Your task to perform on an android device: change the clock style Image 0: 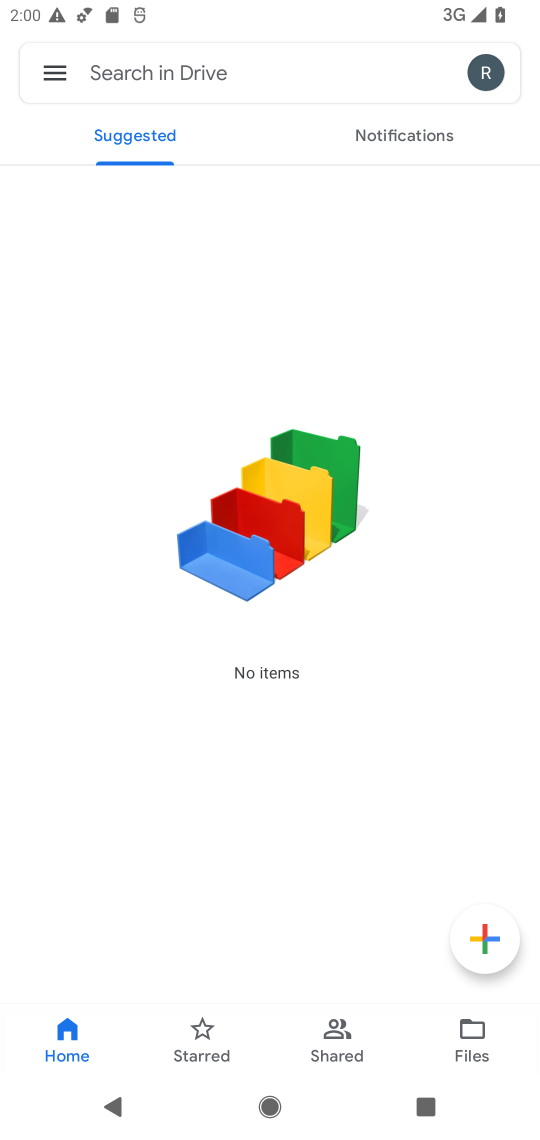
Step 0: press home button
Your task to perform on an android device: change the clock style Image 1: 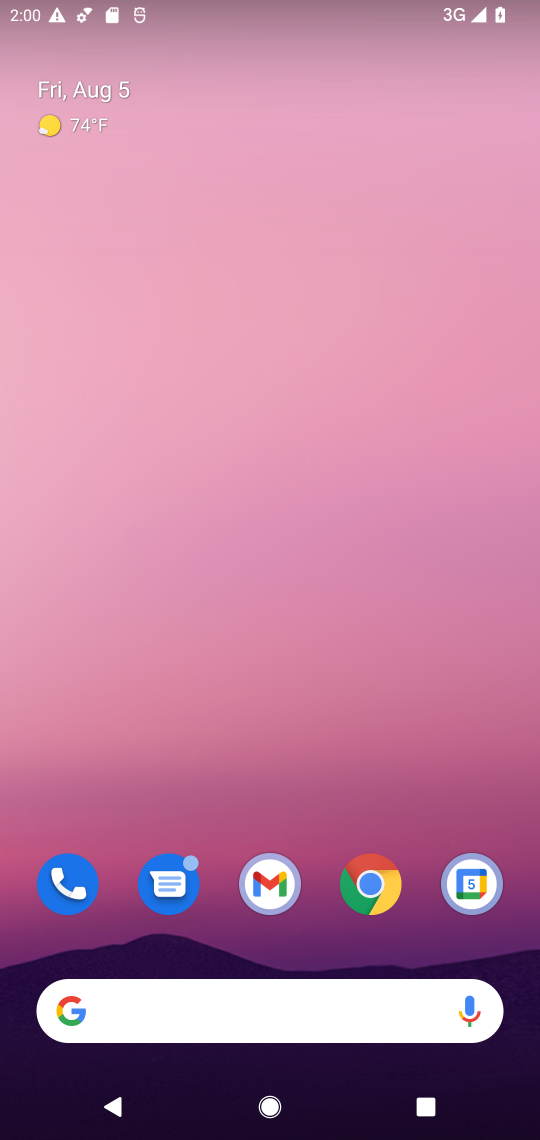
Step 1: drag from (475, 975) to (254, 95)
Your task to perform on an android device: change the clock style Image 2: 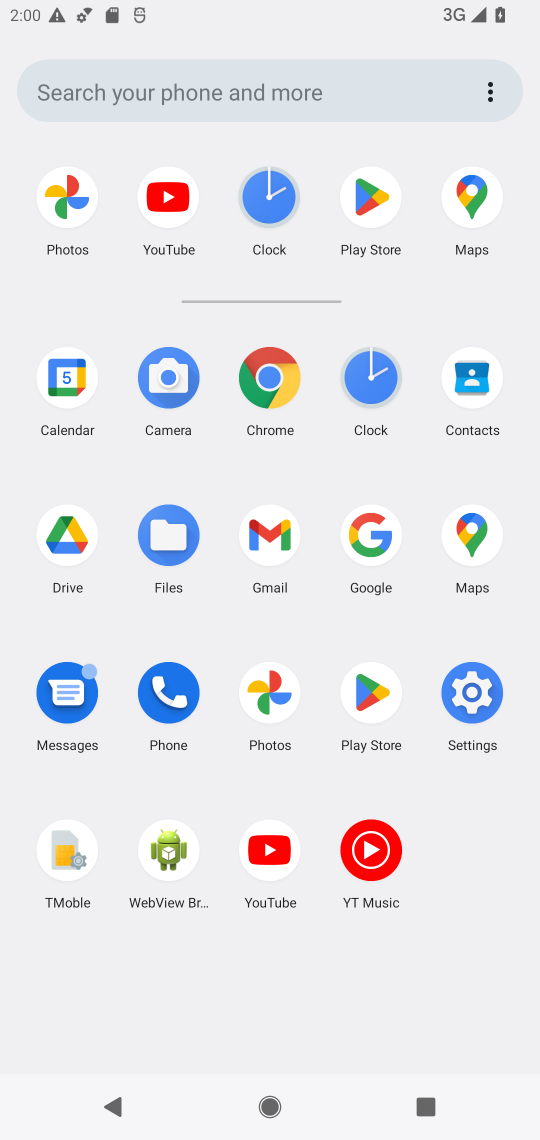
Step 2: click (266, 211)
Your task to perform on an android device: change the clock style Image 3: 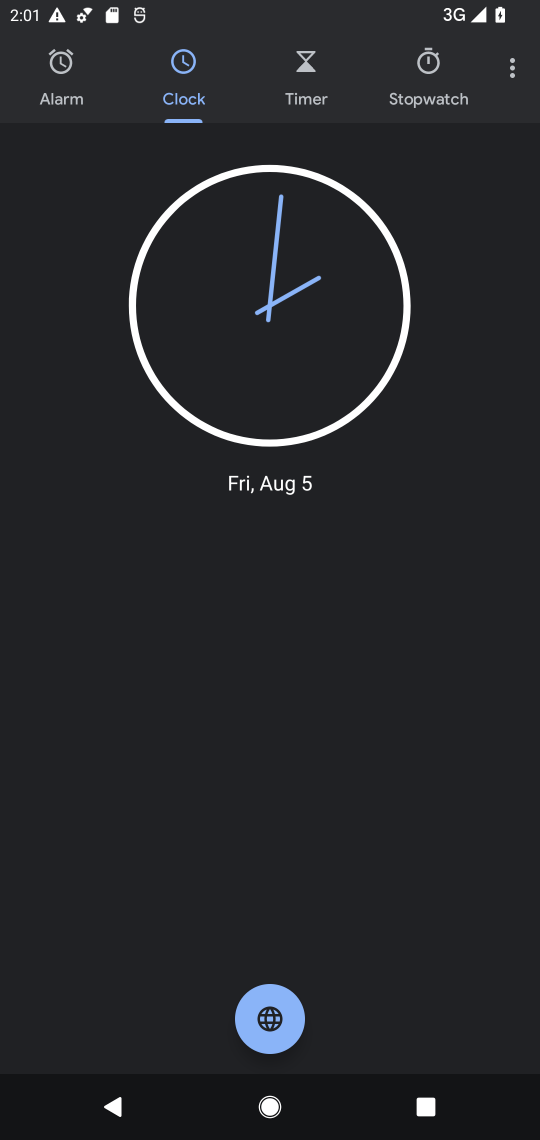
Step 3: click (514, 76)
Your task to perform on an android device: change the clock style Image 4: 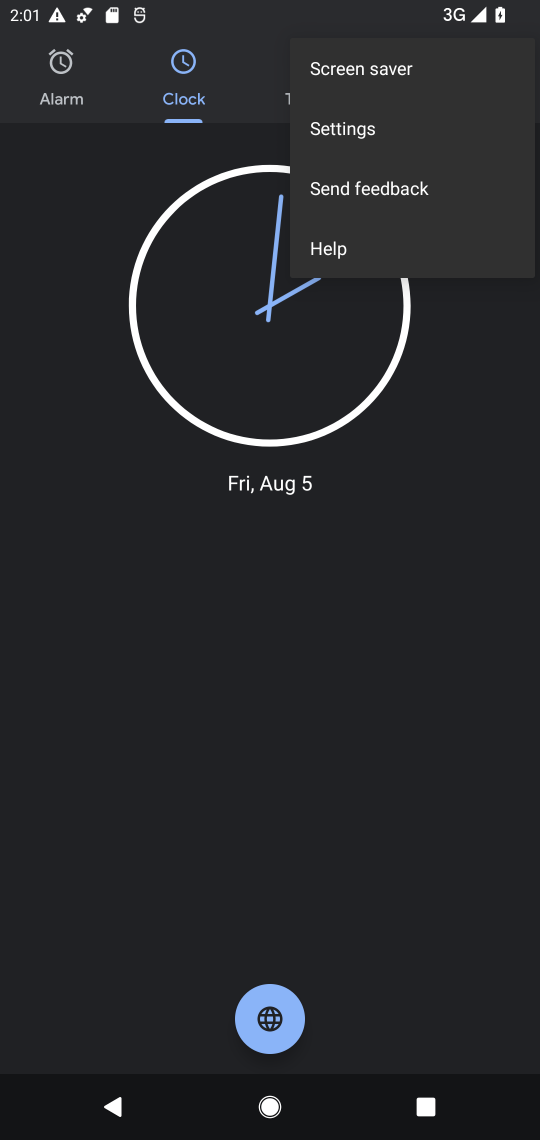
Step 4: click (338, 146)
Your task to perform on an android device: change the clock style Image 5: 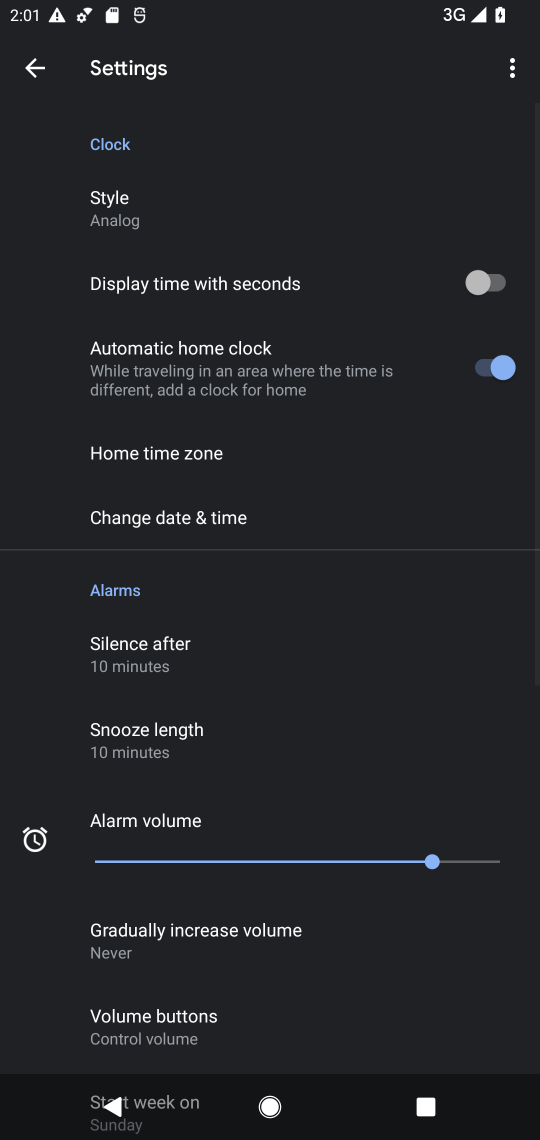
Step 5: click (112, 218)
Your task to perform on an android device: change the clock style Image 6: 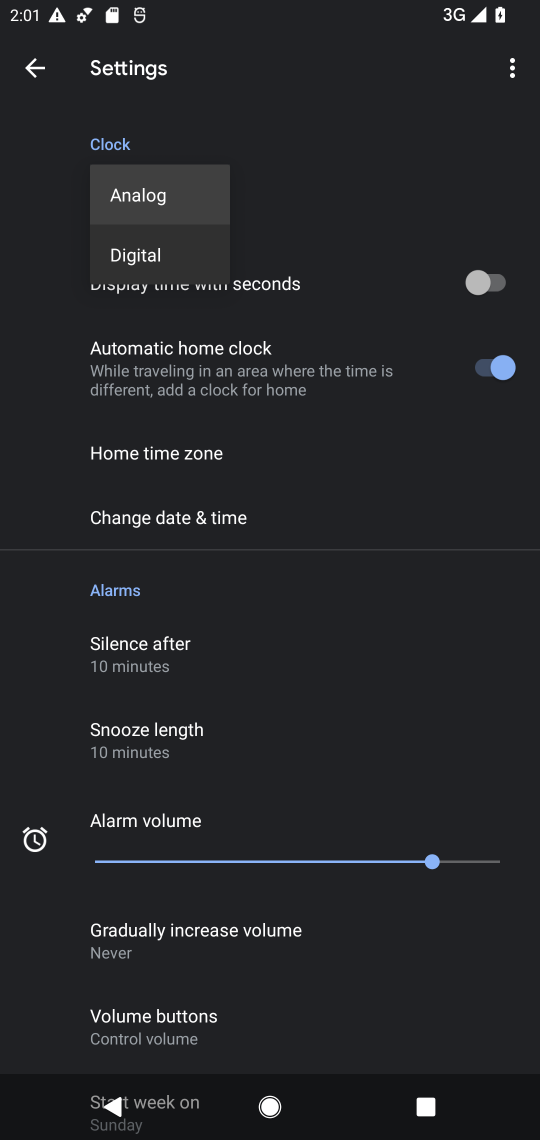
Step 6: click (171, 260)
Your task to perform on an android device: change the clock style Image 7: 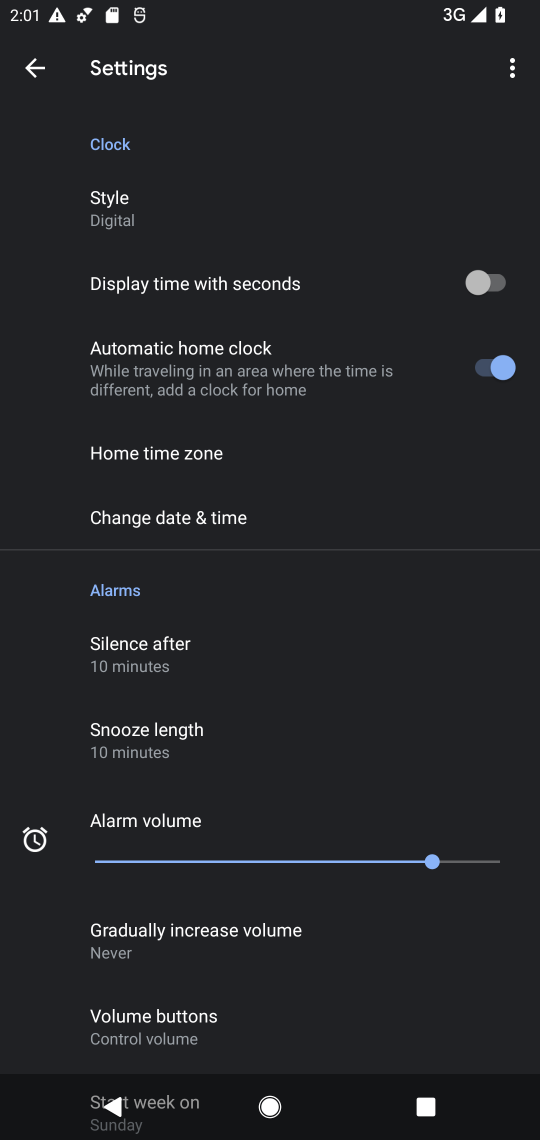
Step 7: task complete